Your task to perform on an android device: open a new tab in the chrome app Image 0: 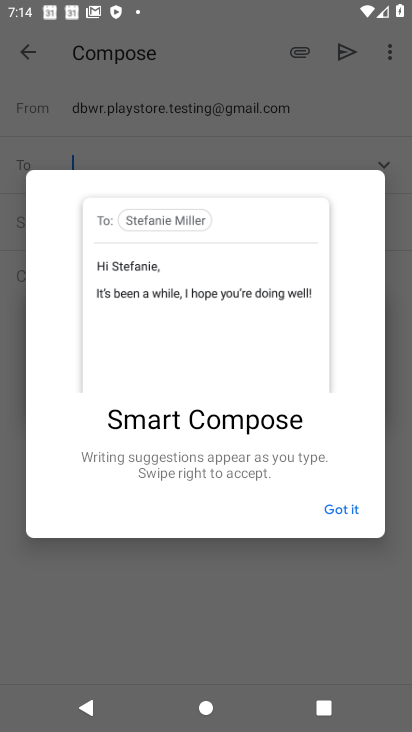
Step 0: press home button
Your task to perform on an android device: open a new tab in the chrome app Image 1: 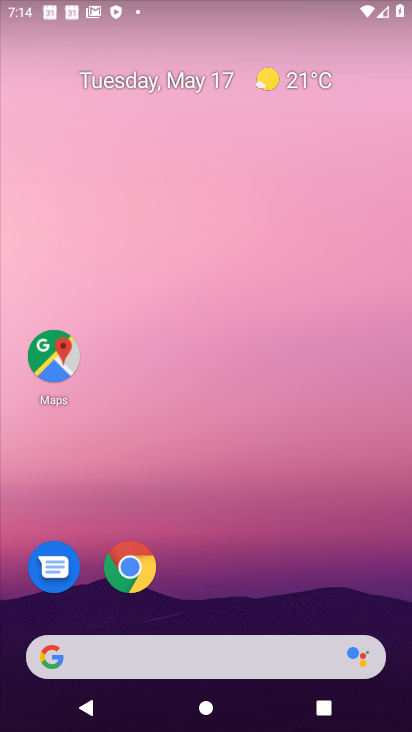
Step 1: click (117, 563)
Your task to perform on an android device: open a new tab in the chrome app Image 2: 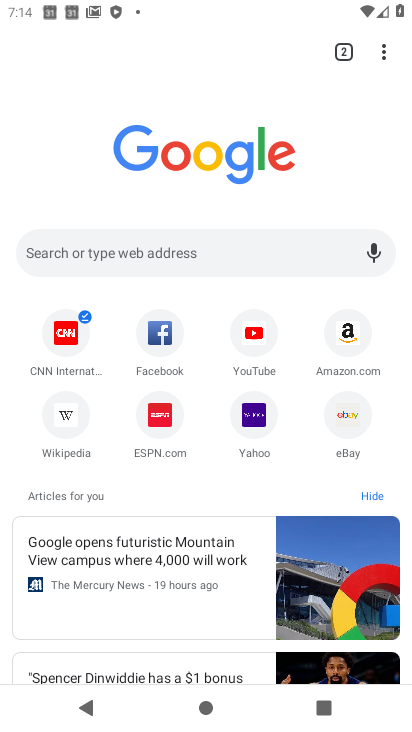
Step 2: click (381, 47)
Your task to perform on an android device: open a new tab in the chrome app Image 3: 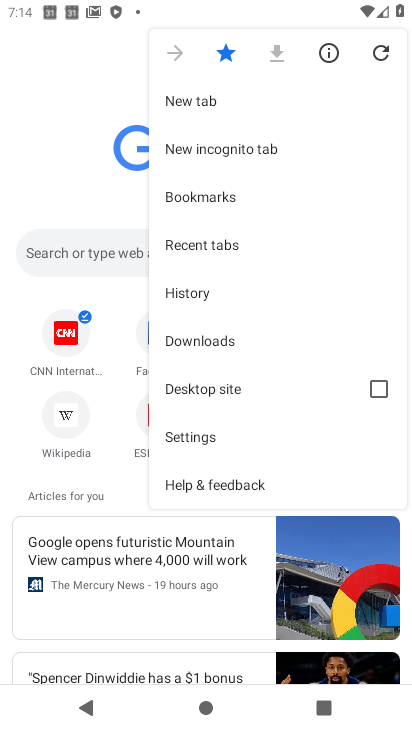
Step 3: click (201, 105)
Your task to perform on an android device: open a new tab in the chrome app Image 4: 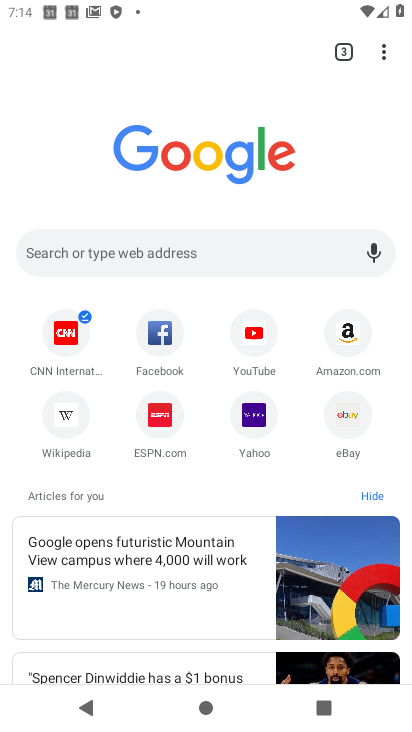
Step 4: task complete